Your task to perform on an android device: Open notification settings Image 0: 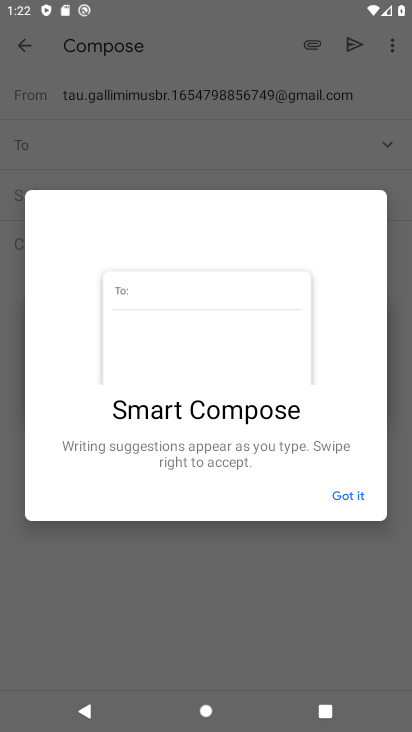
Step 0: press home button
Your task to perform on an android device: Open notification settings Image 1: 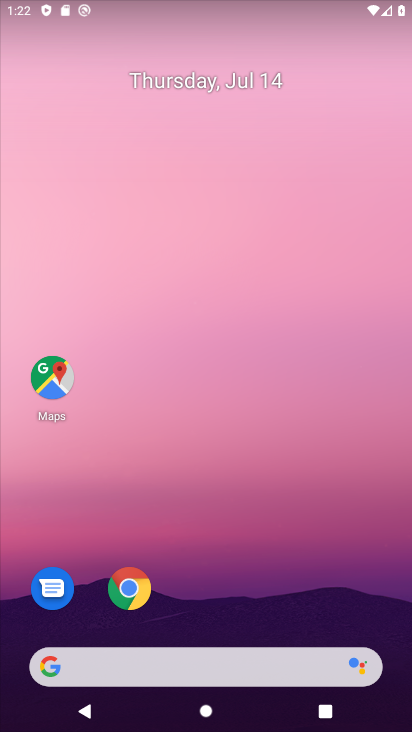
Step 1: drag from (307, 593) to (356, 14)
Your task to perform on an android device: Open notification settings Image 2: 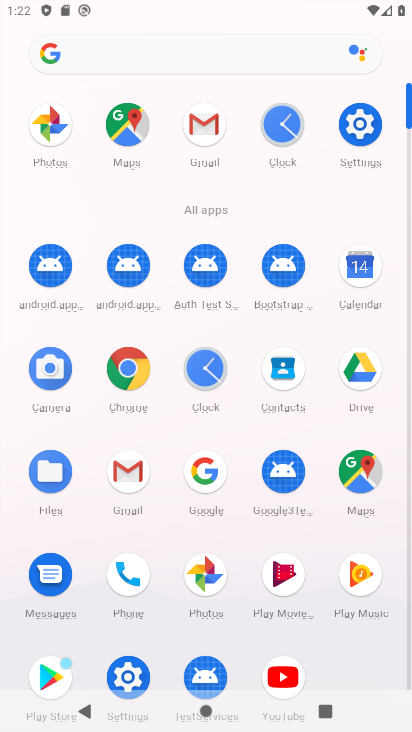
Step 2: click (360, 143)
Your task to perform on an android device: Open notification settings Image 3: 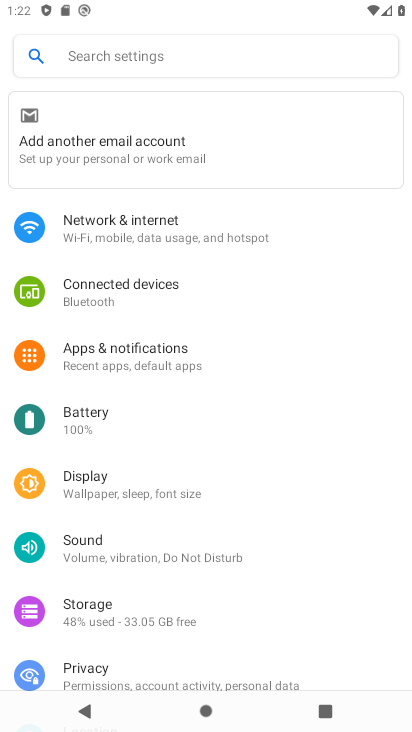
Step 3: click (156, 355)
Your task to perform on an android device: Open notification settings Image 4: 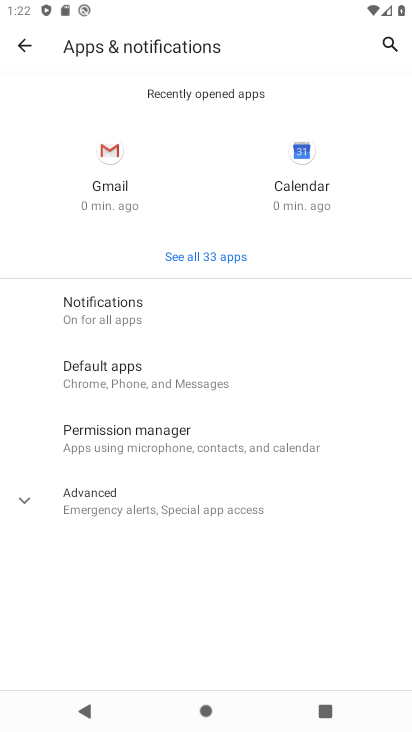
Step 4: click (162, 300)
Your task to perform on an android device: Open notification settings Image 5: 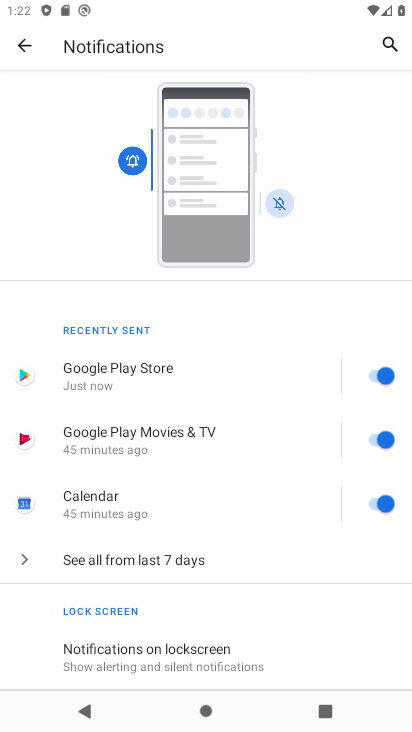
Step 5: task complete